Your task to perform on an android device: Go to Android settings Image 0: 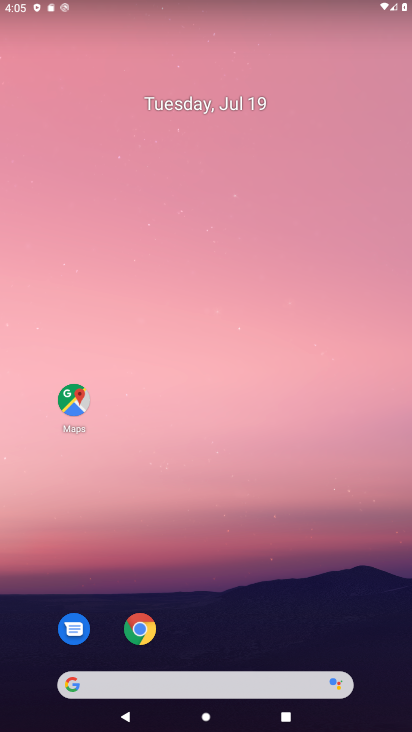
Step 0: click (246, 135)
Your task to perform on an android device: Go to Android settings Image 1: 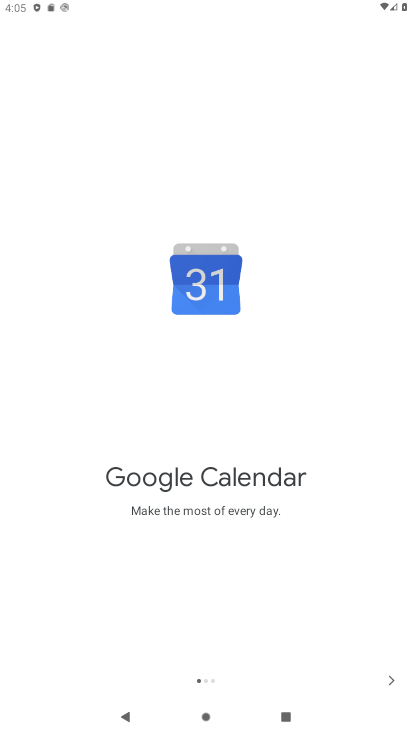
Step 1: click (382, 681)
Your task to perform on an android device: Go to Android settings Image 2: 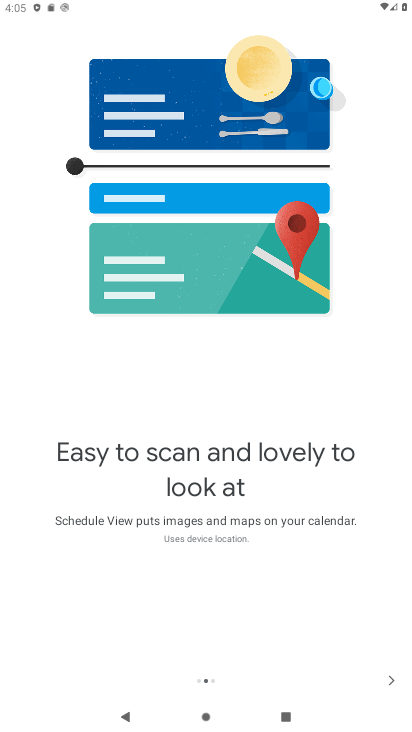
Step 2: click (382, 681)
Your task to perform on an android device: Go to Android settings Image 3: 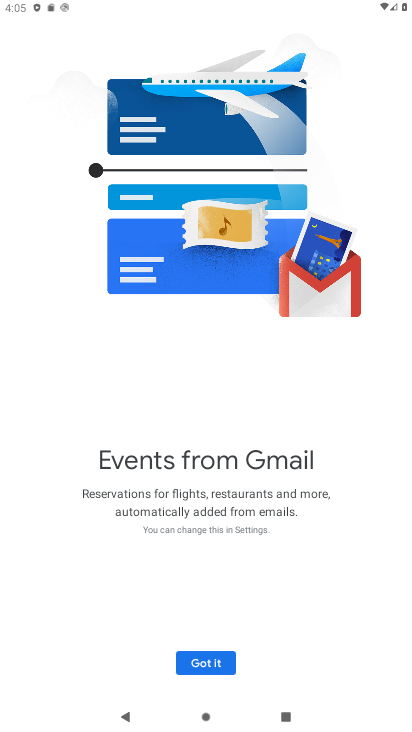
Step 3: click (223, 660)
Your task to perform on an android device: Go to Android settings Image 4: 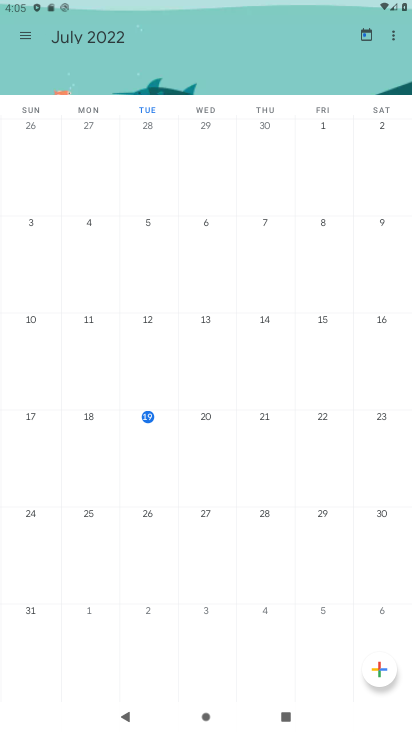
Step 4: press home button
Your task to perform on an android device: Go to Android settings Image 5: 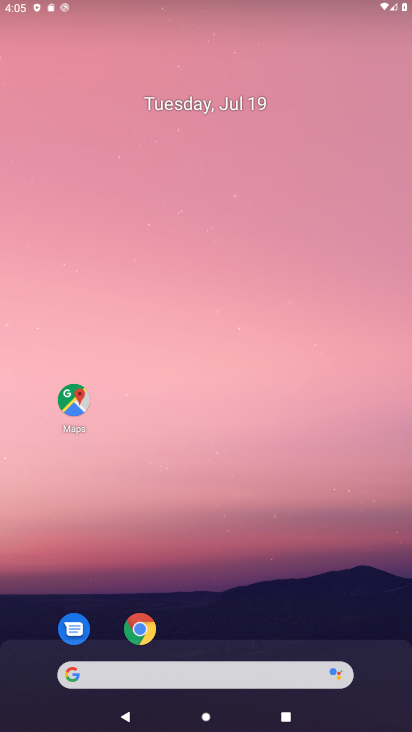
Step 5: drag from (205, 647) to (205, 220)
Your task to perform on an android device: Go to Android settings Image 6: 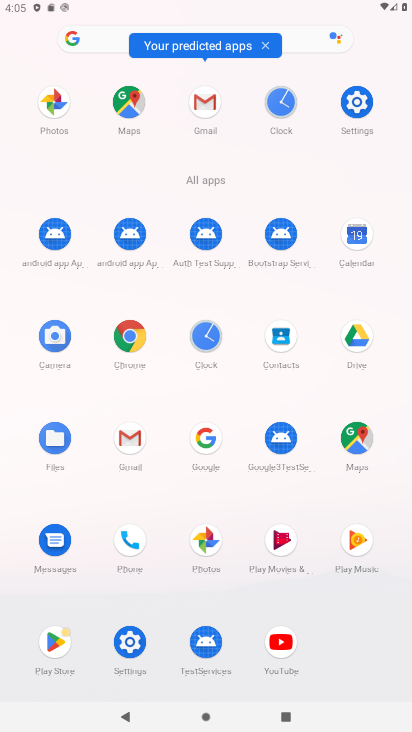
Step 6: click (356, 103)
Your task to perform on an android device: Go to Android settings Image 7: 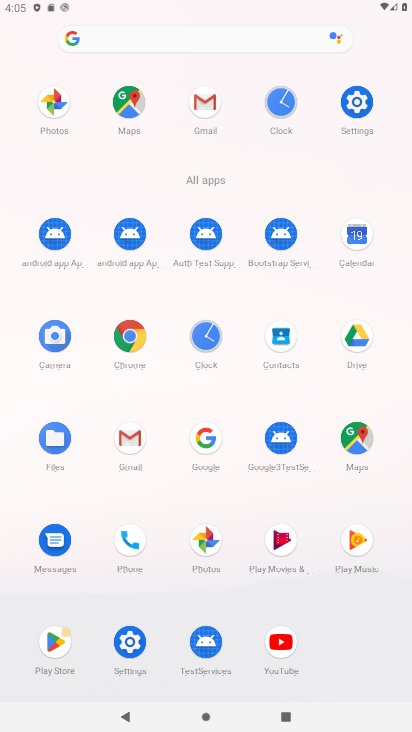
Step 7: click (357, 94)
Your task to perform on an android device: Go to Android settings Image 8: 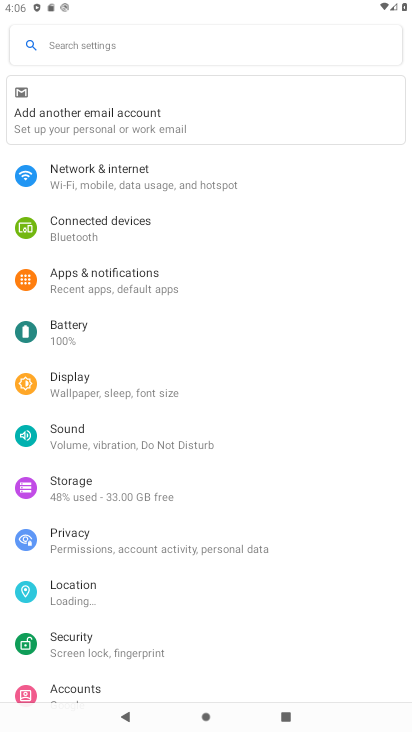
Step 8: task complete